Your task to perform on an android device: set an alarm Image 0: 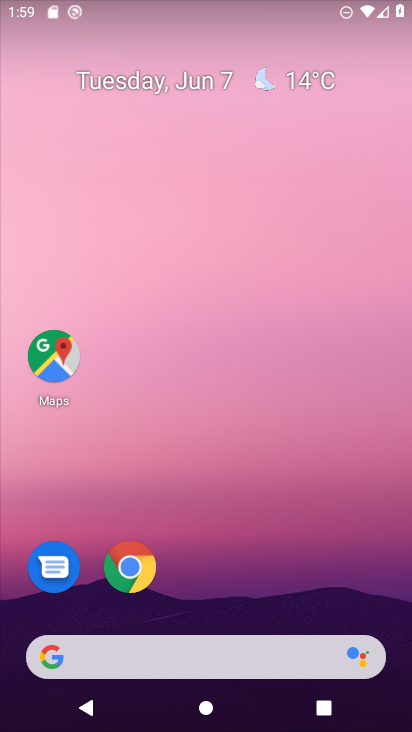
Step 0: drag from (347, 565) to (353, 14)
Your task to perform on an android device: set an alarm Image 1: 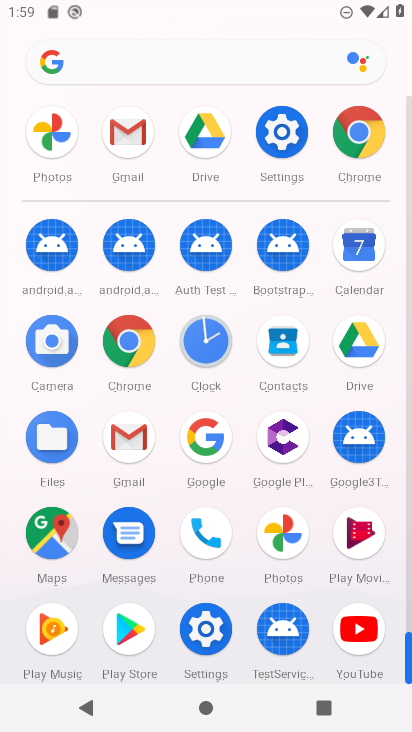
Step 1: click (219, 362)
Your task to perform on an android device: set an alarm Image 2: 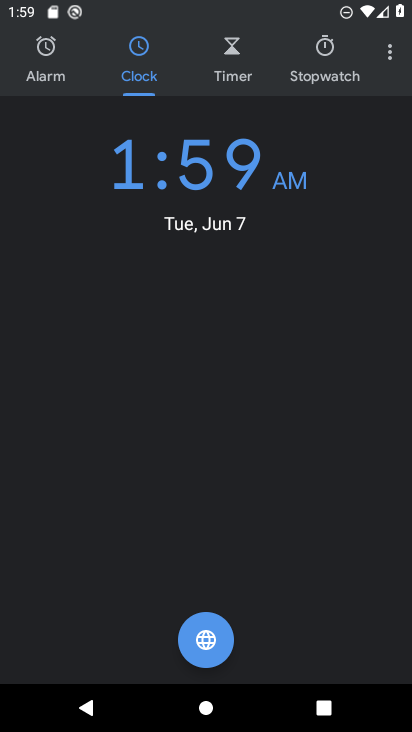
Step 2: click (34, 64)
Your task to perform on an android device: set an alarm Image 3: 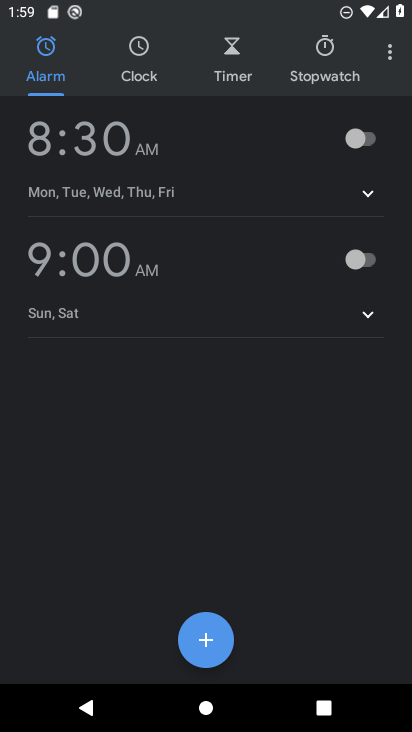
Step 3: click (362, 144)
Your task to perform on an android device: set an alarm Image 4: 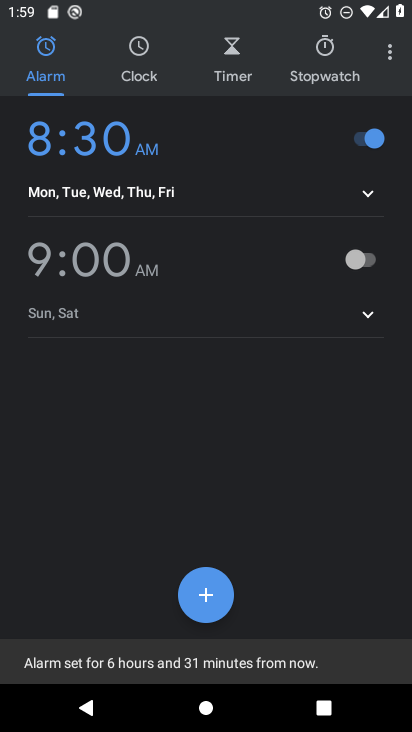
Step 4: task complete